Your task to perform on an android device: change notification settings in the gmail app Image 0: 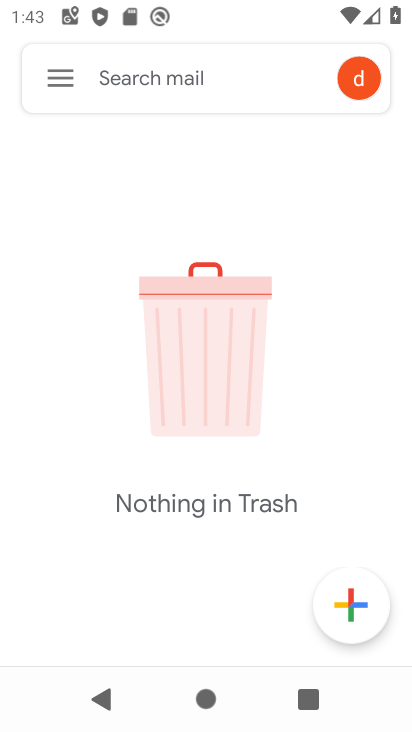
Step 0: click (53, 75)
Your task to perform on an android device: change notification settings in the gmail app Image 1: 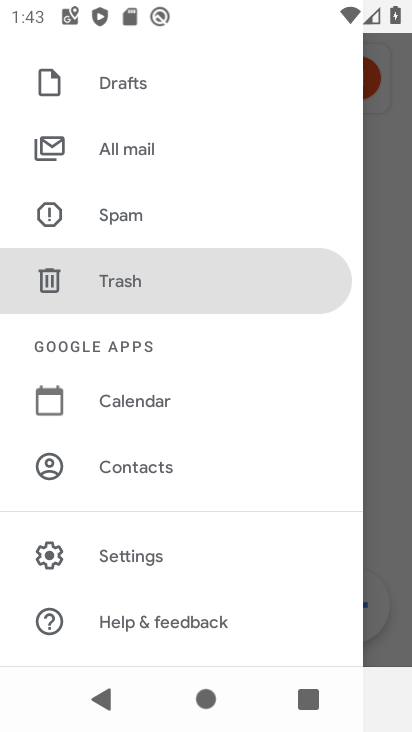
Step 1: click (148, 562)
Your task to perform on an android device: change notification settings in the gmail app Image 2: 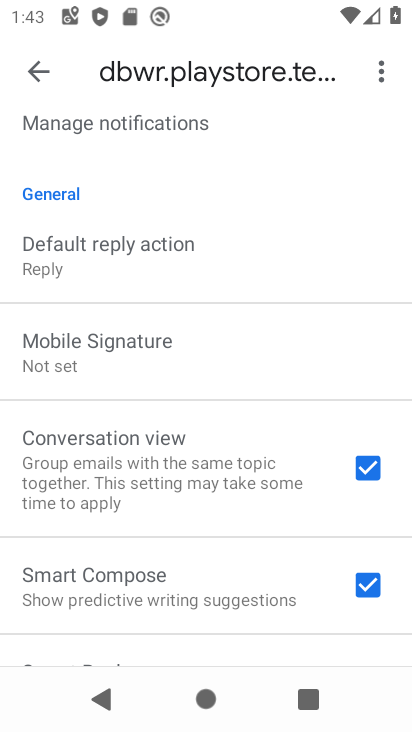
Step 2: drag from (191, 530) to (185, 174)
Your task to perform on an android device: change notification settings in the gmail app Image 3: 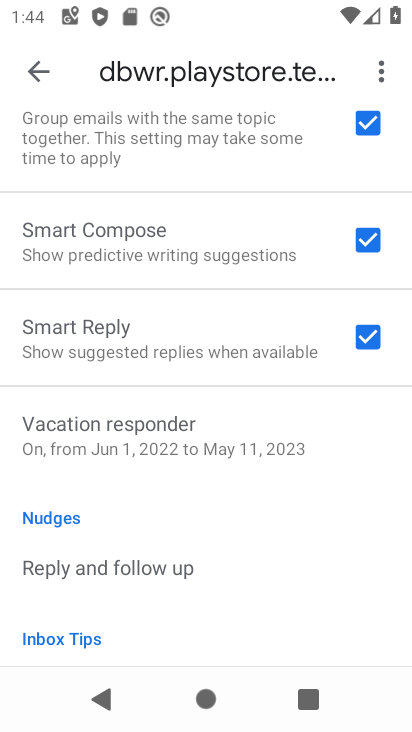
Step 3: drag from (187, 412) to (221, 152)
Your task to perform on an android device: change notification settings in the gmail app Image 4: 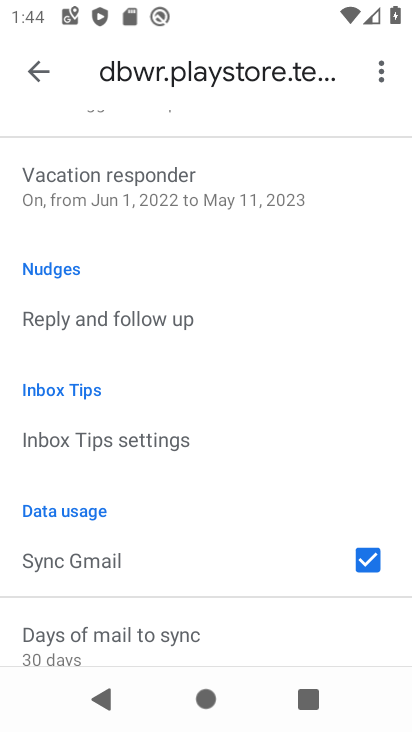
Step 4: drag from (188, 431) to (243, 142)
Your task to perform on an android device: change notification settings in the gmail app Image 5: 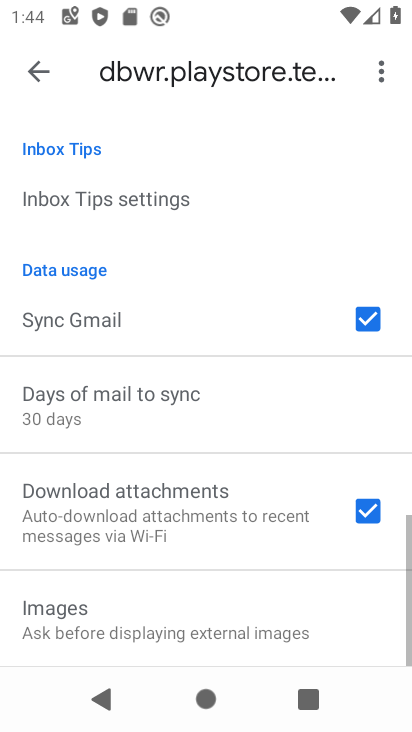
Step 5: drag from (196, 498) to (212, 201)
Your task to perform on an android device: change notification settings in the gmail app Image 6: 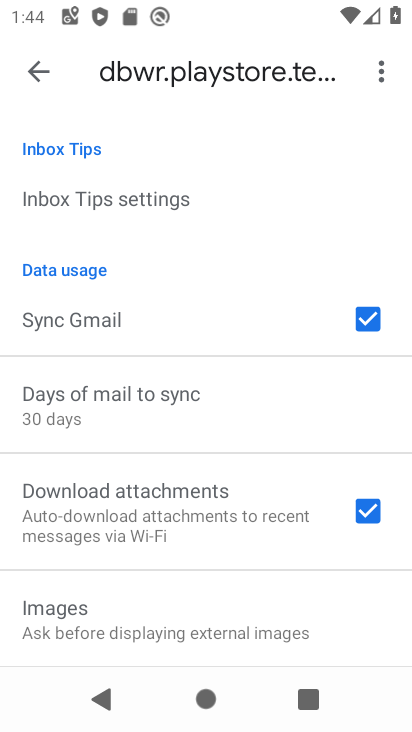
Step 6: drag from (221, 199) to (233, 602)
Your task to perform on an android device: change notification settings in the gmail app Image 7: 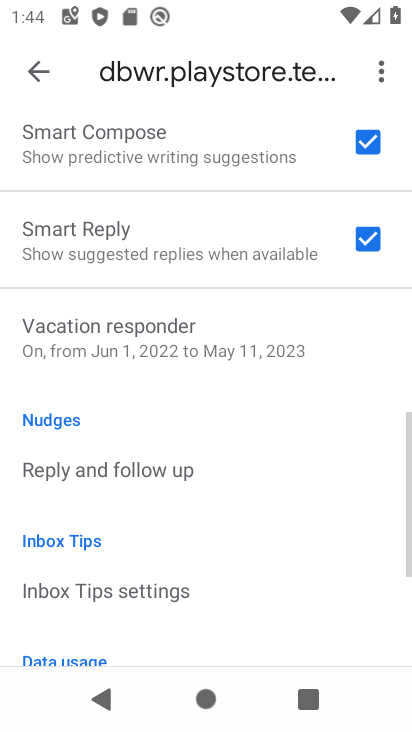
Step 7: drag from (271, 275) to (273, 644)
Your task to perform on an android device: change notification settings in the gmail app Image 8: 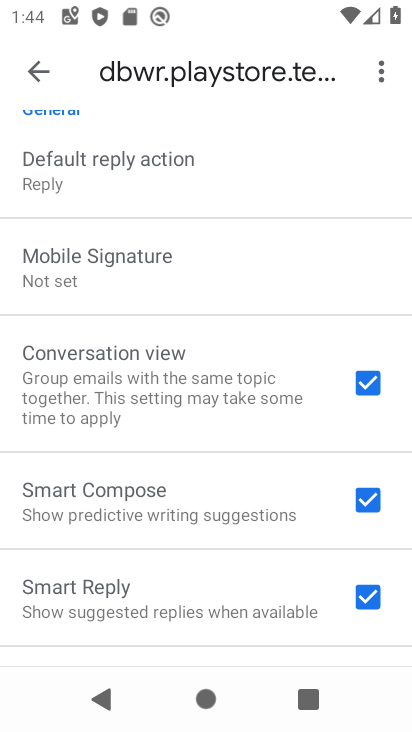
Step 8: drag from (207, 221) to (215, 602)
Your task to perform on an android device: change notification settings in the gmail app Image 9: 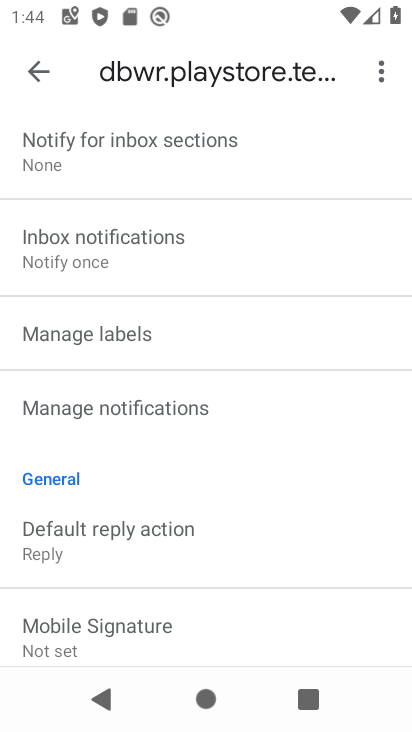
Step 9: click (170, 395)
Your task to perform on an android device: change notification settings in the gmail app Image 10: 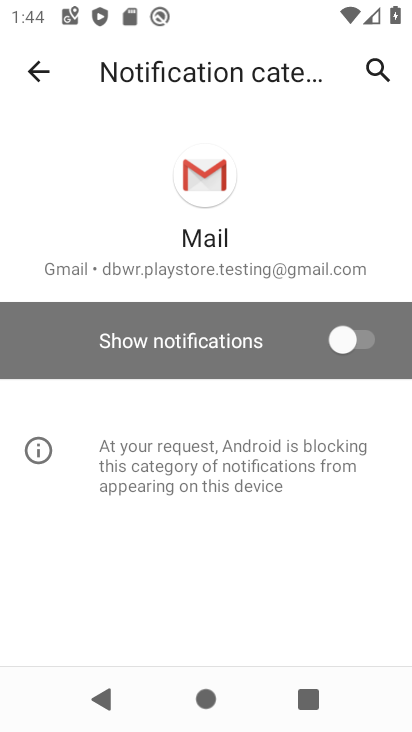
Step 10: click (359, 334)
Your task to perform on an android device: change notification settings in the gmail app Image 11: 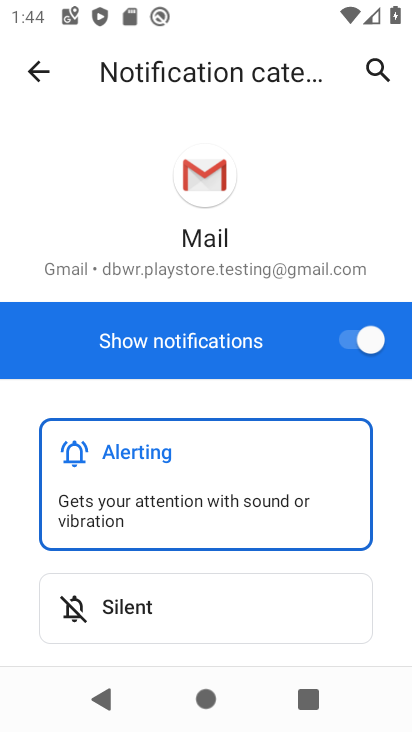
Step 11: task complete